Your task to perform on an android device: View the shopping cart on target.com. Image 0: 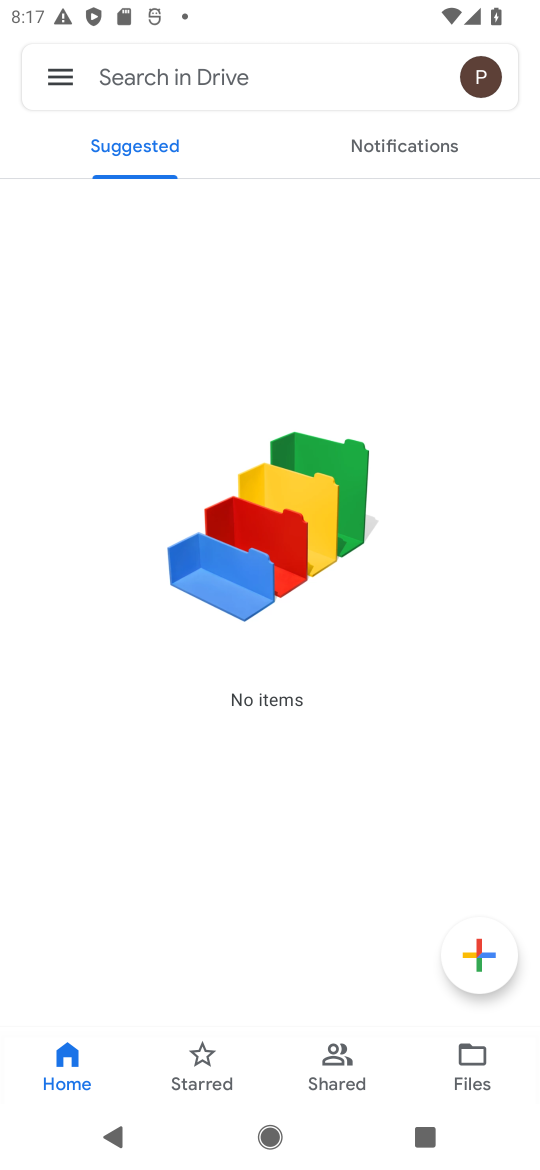
Step 0: press home button
Your task to perform on an android device: View the shopping cart on target.com. Image 1: 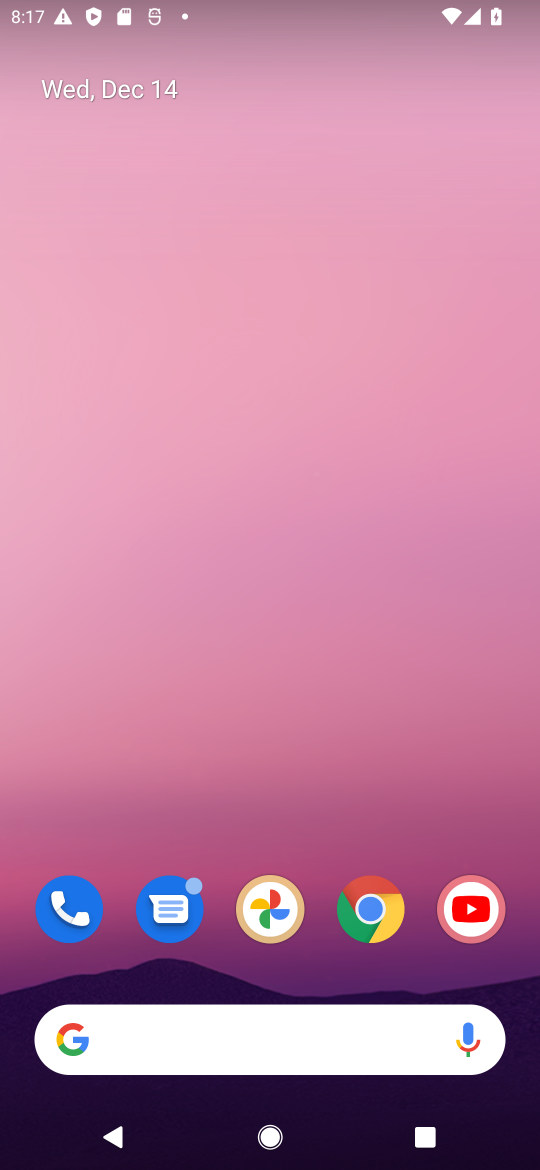
Step 1: click (363, 900)
Your task to perform on an android device: View the shopping cart on target.com. Image 2: 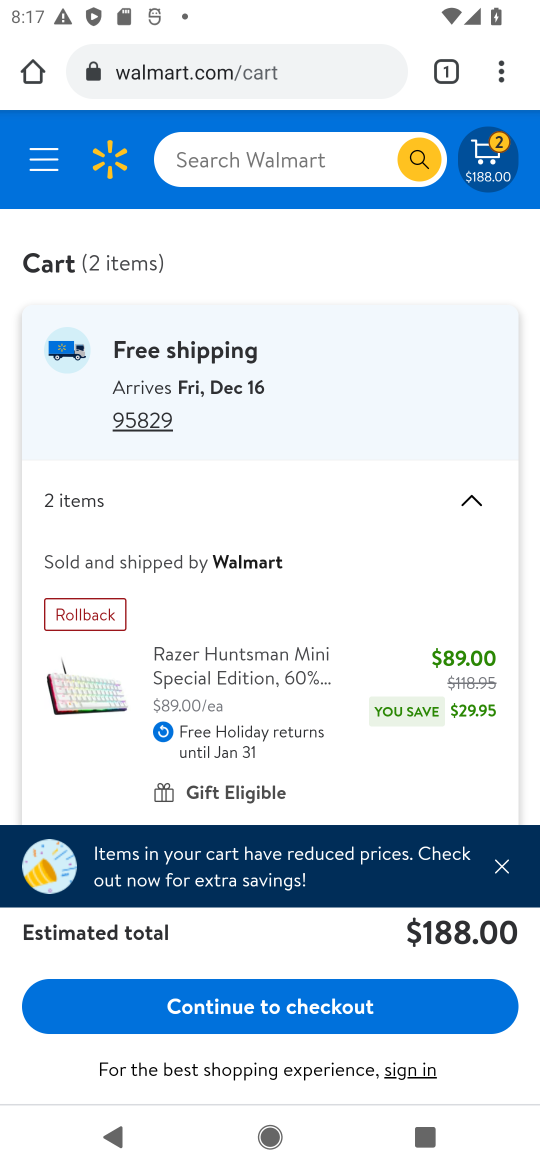
Step 2: click (359, 79)
Your task to perform on an android device: View the shopping cart on target.com. Image 3: 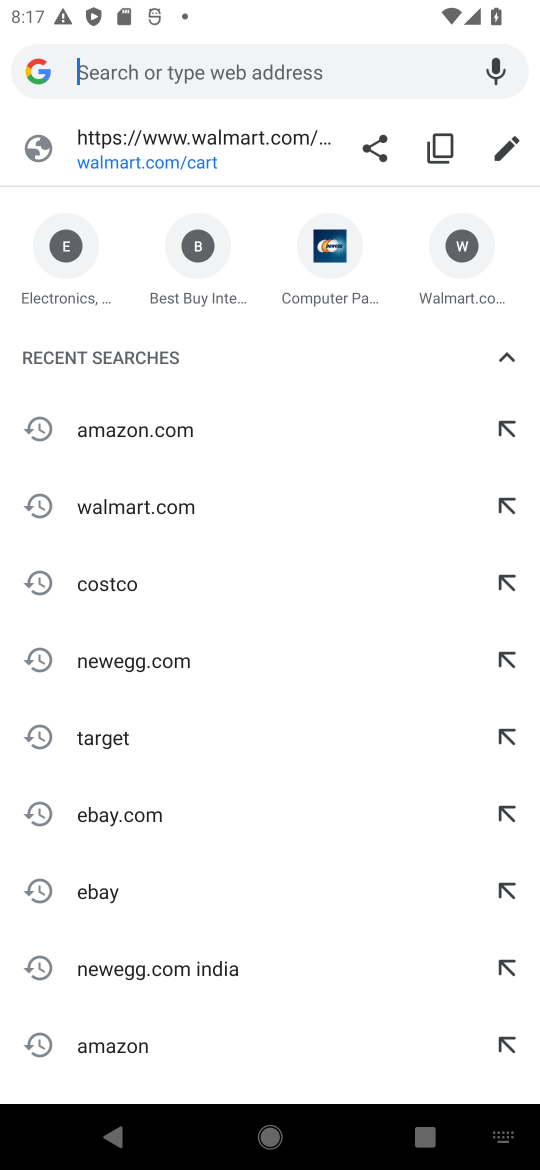
Step 3: type "target"
Your task to perform on an android device: View the shopping cart on target.com. Image 4: 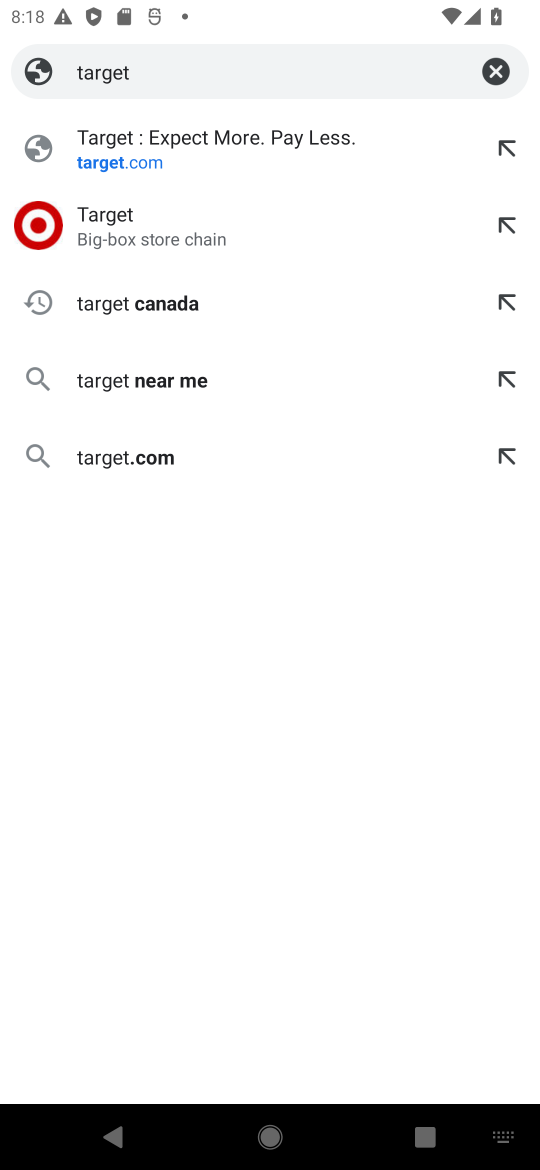
Step 4: click (102, 241)
Your task to perform on an android device: View the shopping cart on target.com. Image 5: 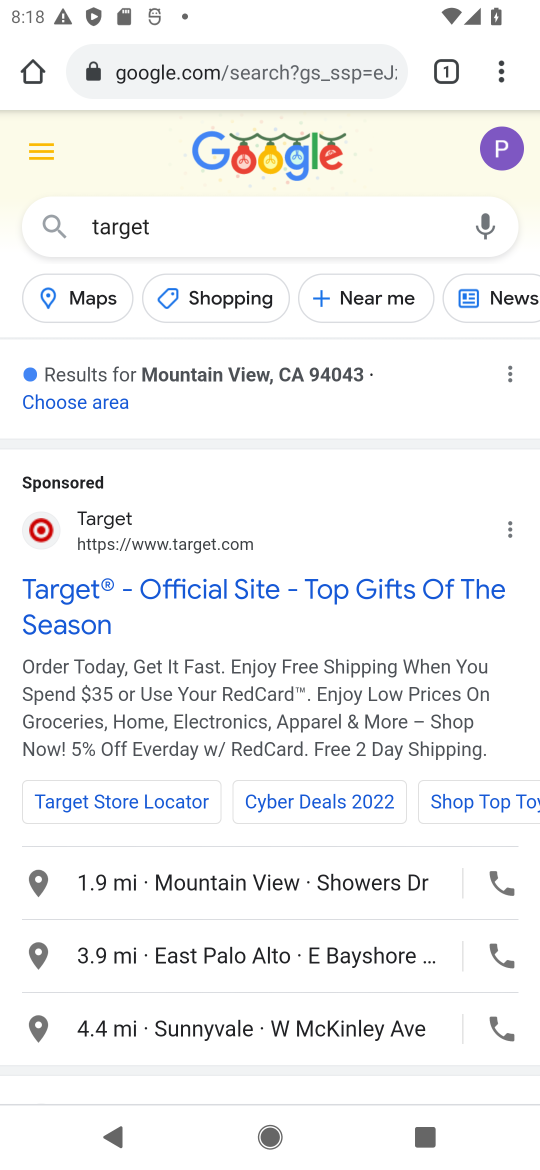
Step 5: click (204, 539)
Your task to perform on an android device: View the shopping cart on target.com. Image 6: 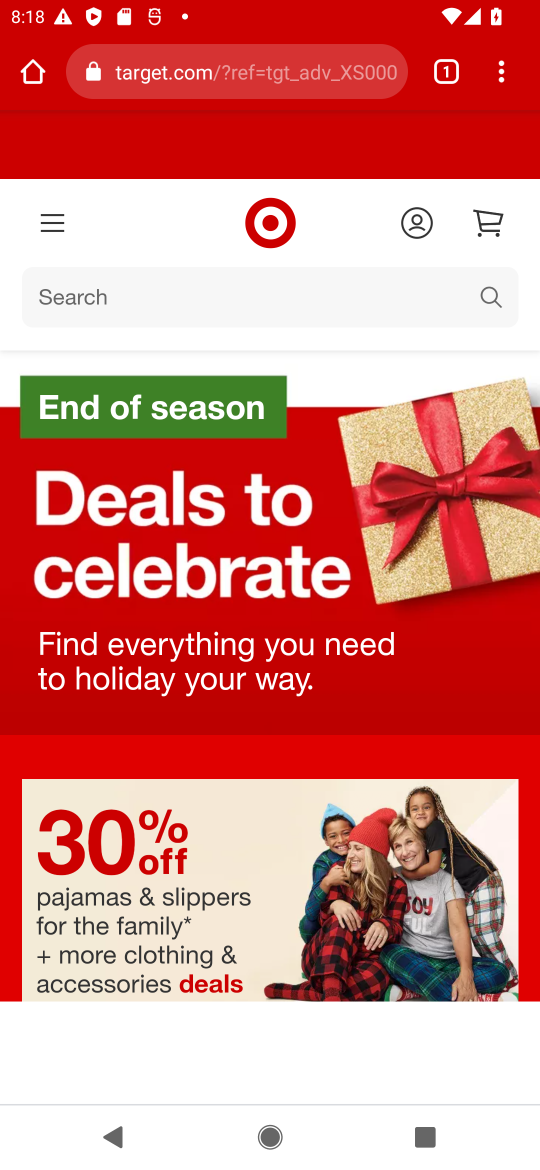
Step 6: click (482, 224)
Your task to perform on an android device: View the shopping cart on target.com. Image 7: 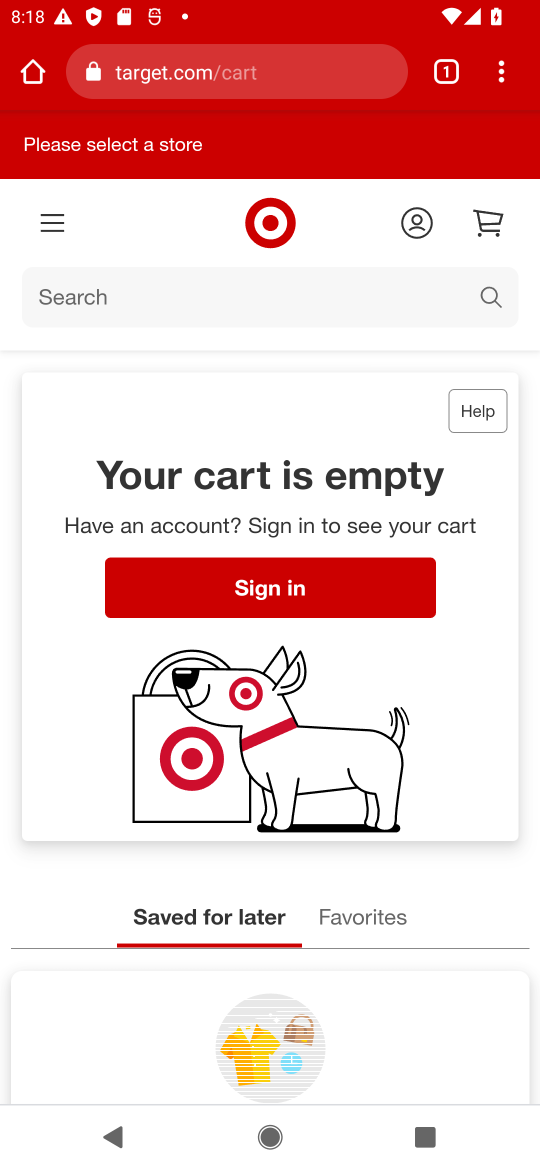
Step 7: task complete